Your task to perform on an android device: change text size in settings app Image 0: 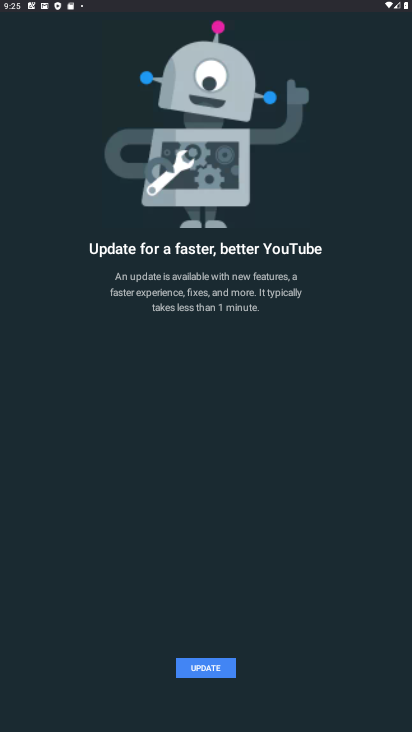
Step 0: press home button
Your task to perform on an android device: change text size in settings app Image 1: 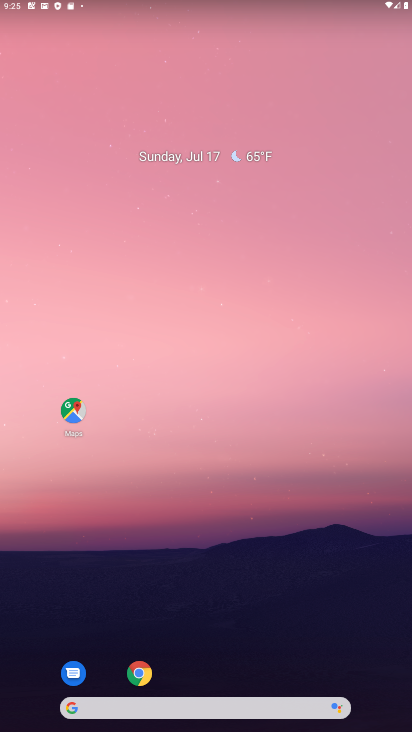
Step 1: drag from (222, 624) to (217, 33)
Your task to perform on an android device: change text size in settings app Image 2: 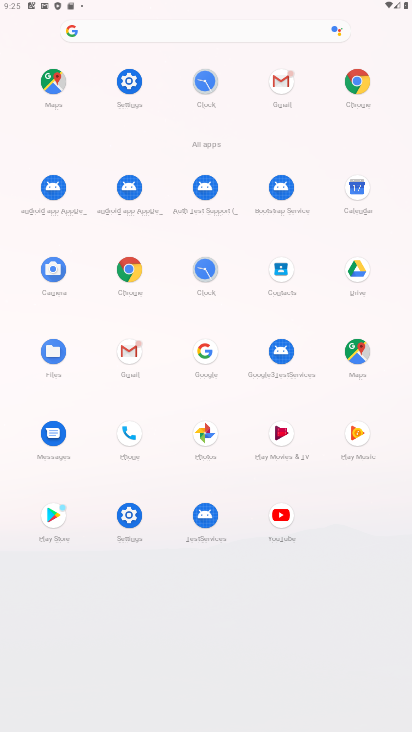
Step 2: click (128, 77)
Your task to perform on an android device: change text size in settings app Image 3: 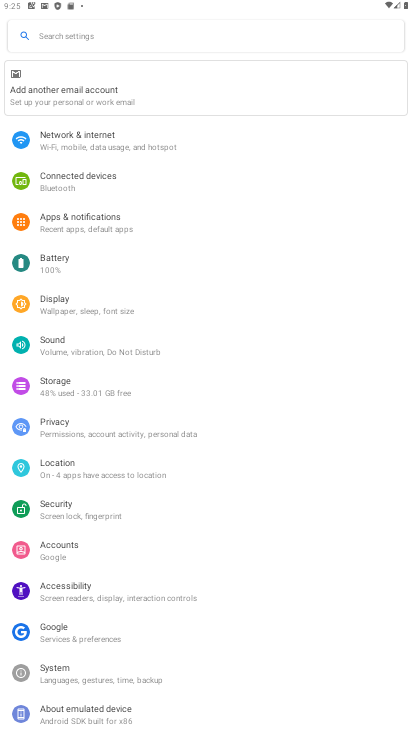
Step 3: click (51, 298)
Your task to perform on an android device: change text size in settings app Image 4: 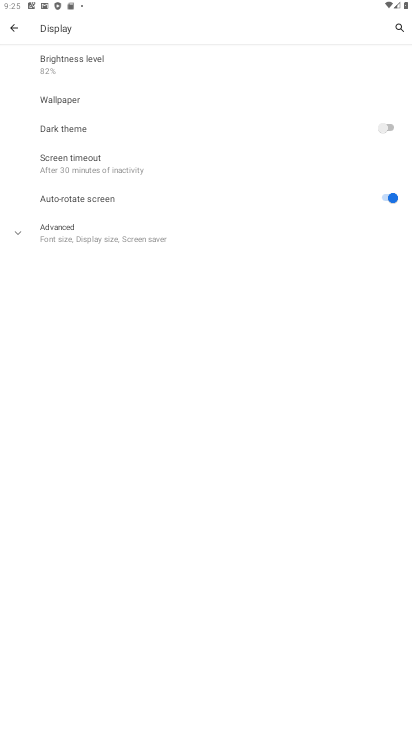
Step 4: click (88, 233)
Your task to perform on an android device: change text size in settings app Image 5: 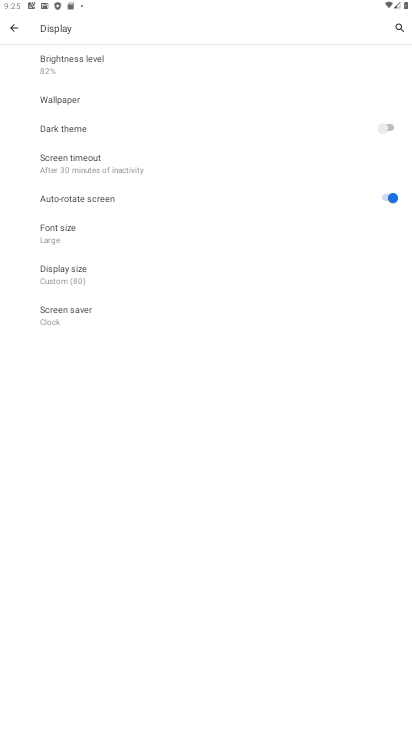
Step 5: click (42, 226)
Your task to perform on an android device: change text size in settings app Image 6: 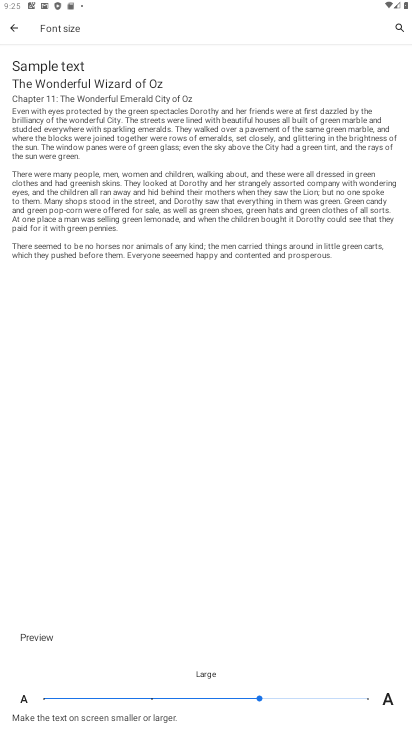
Step 6: click (317, 699)
Your task to perform on an android device: change text size in settings app Image 7: 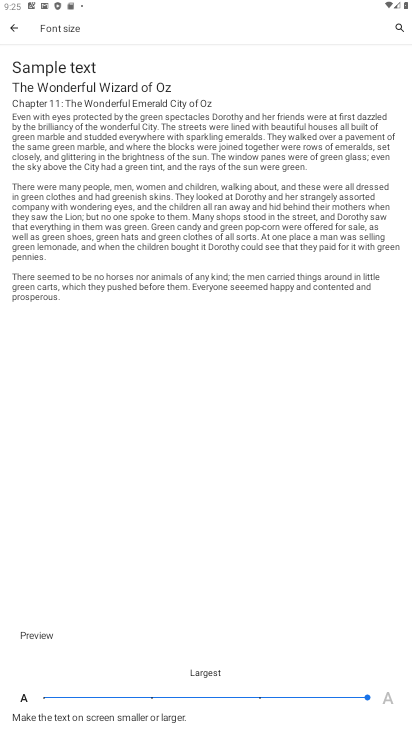
Step 7: task complete